Your task to perform on an android device: Open Maps and search for coffee Image 0: 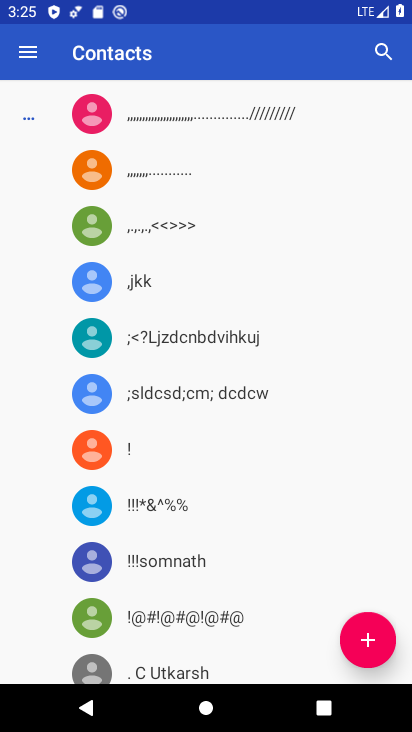
Step 0: press back button
Your task to perform on an android device: Open Maps and search for coffee Image 1: 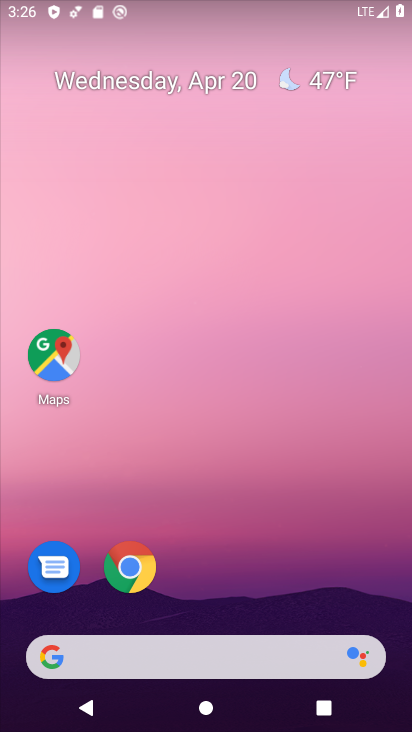
Step 1: drag from (260, 492) to (208, 1)
Your task to perform on an android device: Open Maps and search for coffee Image 2: 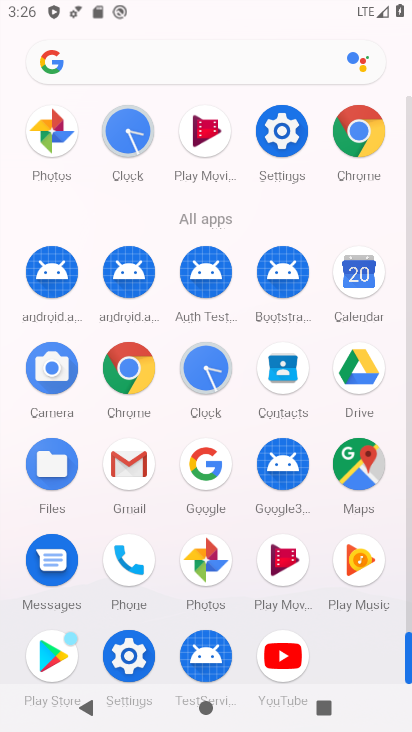
Step 2: click (365, 462)
Your task to perform on an android device: Open Maps and search for coffee Image 3: 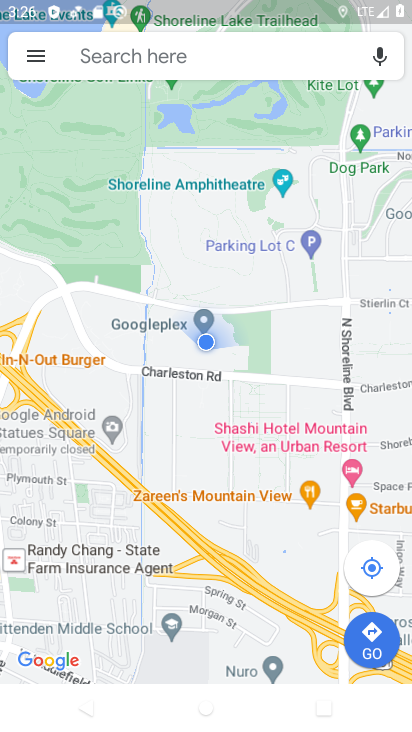
Step 3: click (187, 44)
Your task to perform on an android device: Open Maps and search for coffee Image 4: 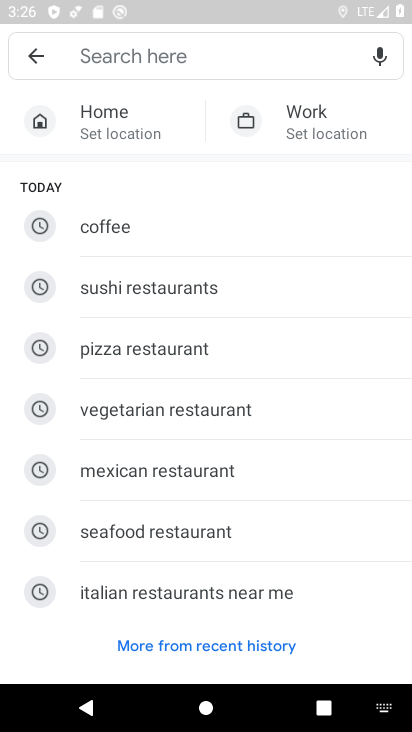
Step 4: click (151, 214)
Your task to perform on an android device: Open Maps and search for coffee Image 5: 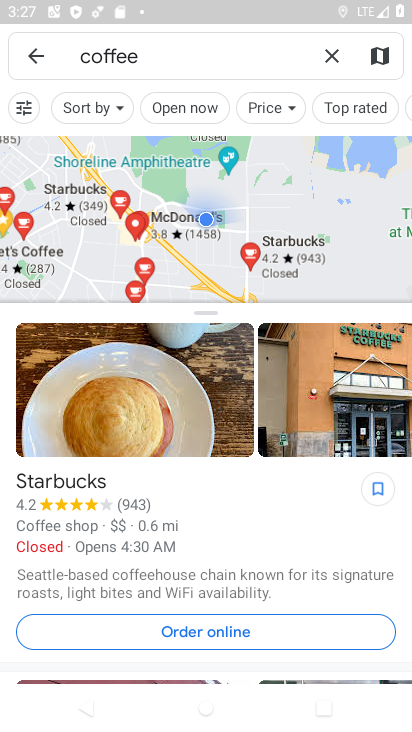
Step 5: task complete